Your task to perform on an android device: open the mobile data screen to see how much data has been used Image 0: 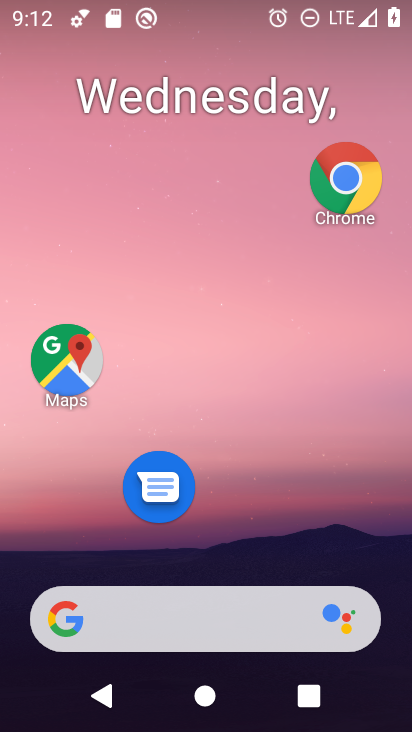
Step 0: drag from (279, 630) to (288, 201)
Your task to perform on an android device: open the mobile data screen to see how much data has been used Image 1: 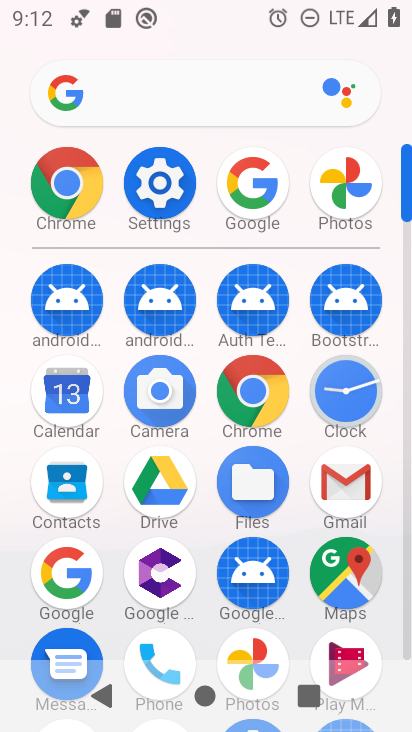
Step 1: click (179, 208)
Your task to perform on an android device: open the mobile data screen to see how much data has been used Image 2: 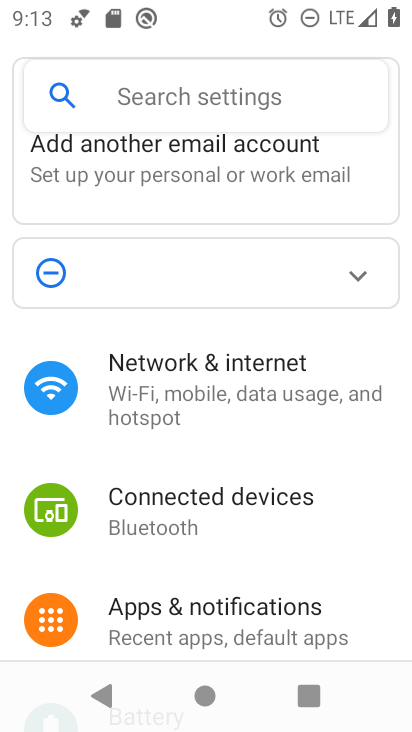
Step 2: click (238, 405)
Your task to perform on an android device: open the mobile data screen to see how much data has been used Image 3: 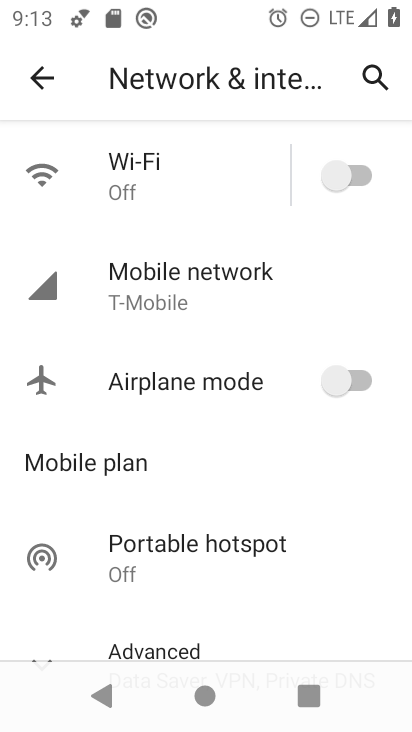
Step 3: click (166, 308)
Your task to perform on an android device: open the mobile data screen to see how much data has been used Image 4: 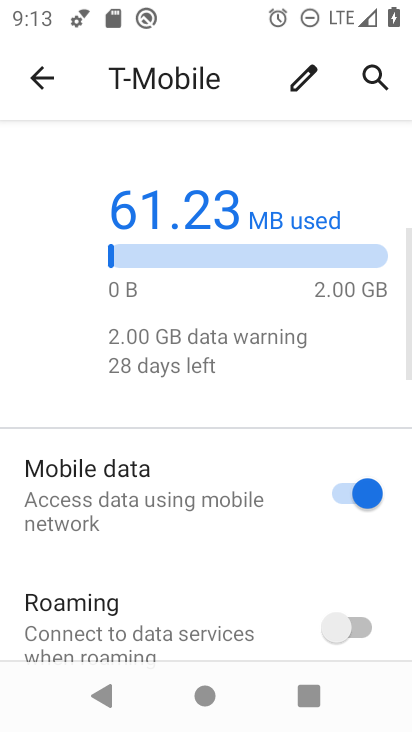
Step 4: drag from (204, 564) to (259, 248)
Your task to perform on an android device: open the mobile data screen to see how much data has been used Image 5: 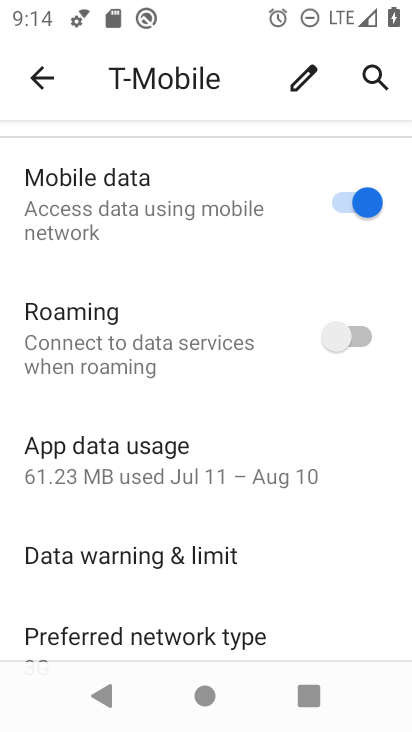
Step 5: click (175, 438)
Your task to perform on an android device: open the mobile data screen to see how much data has been used Image 6: 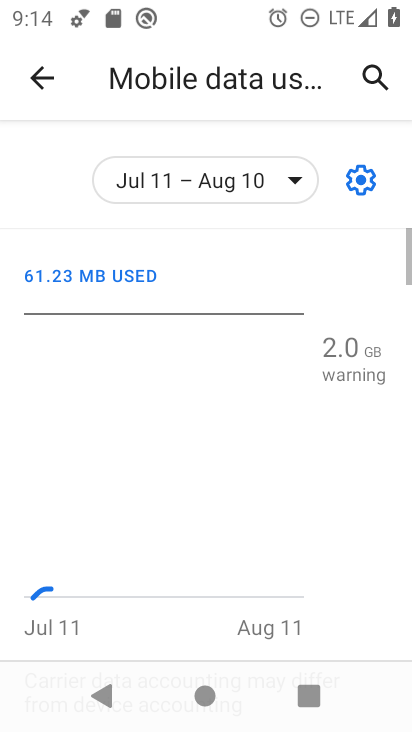
Step 6: task complete